Your task to perform on an android device: Find coffee shops on Maps Image 0: 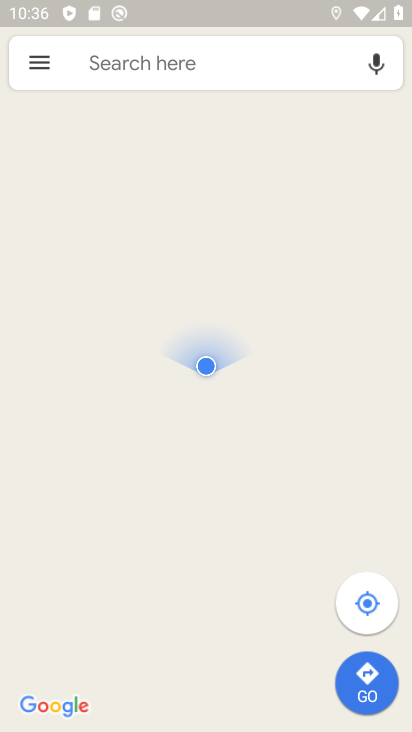
Step 0: press back button
Your task to perform on an android device: Find coffee shops on Maps Image 1: 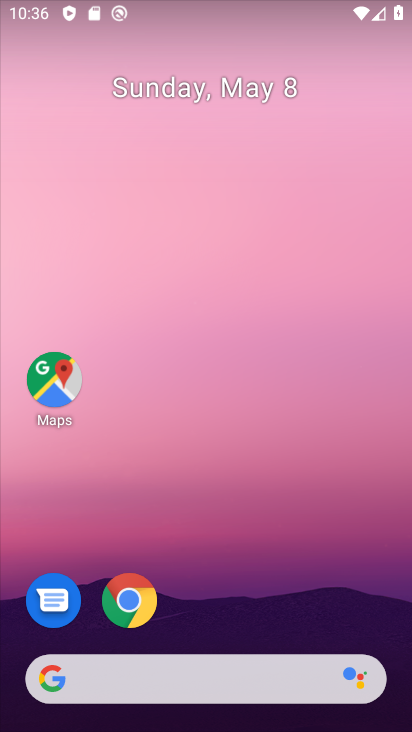
Step 1: click (62, 387)
Your task to perform on an android device: Find coffee shops on Maps Image 2: 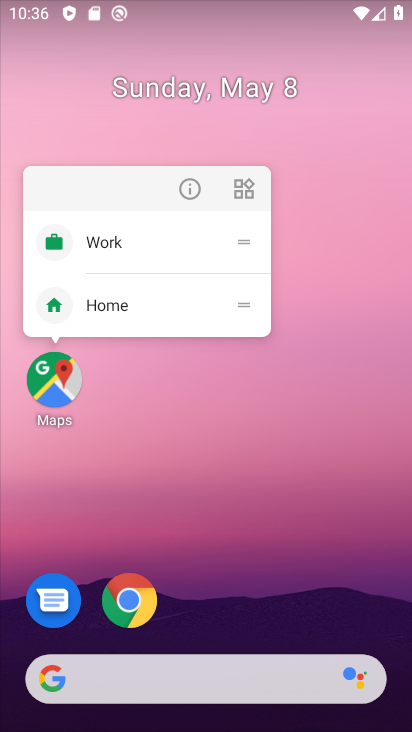
Step 2: click (207, 192)
Your task to perform on an android device: Find coffee shops on Maps Image 3: 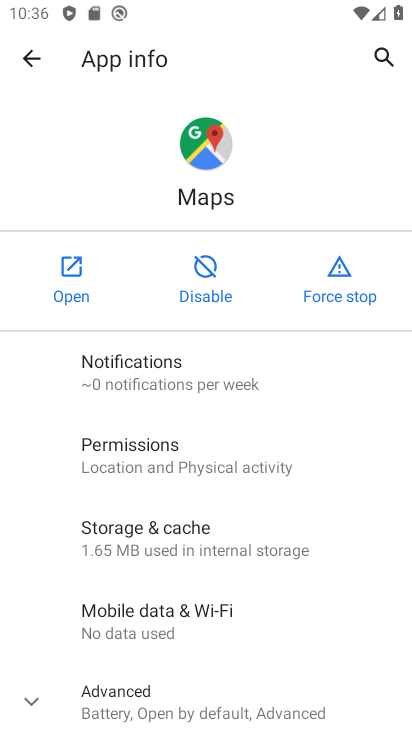
Step 3: click (79, 269)
Your task to perform on an android device: Find coffee shops on Maps Image 4: 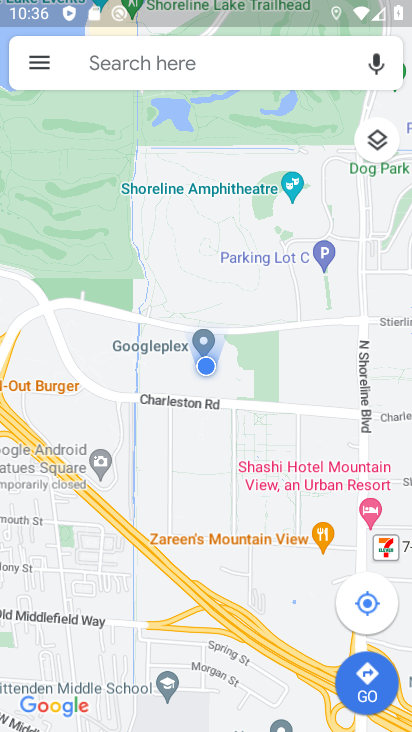
Step 4: click (275, 47)
Your task to perform on an android device: Find coffee shops on Maps Image 5: 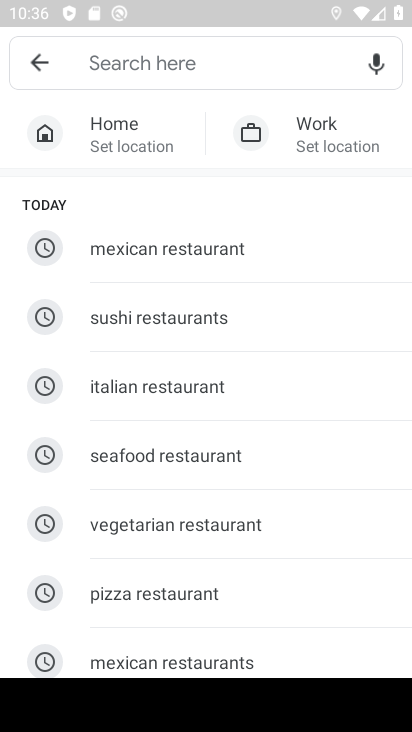
Step 5: drag from (212, 625) to (375, 237)
Your task to perform on an android device: Find coffee shops on Maps Image 6: 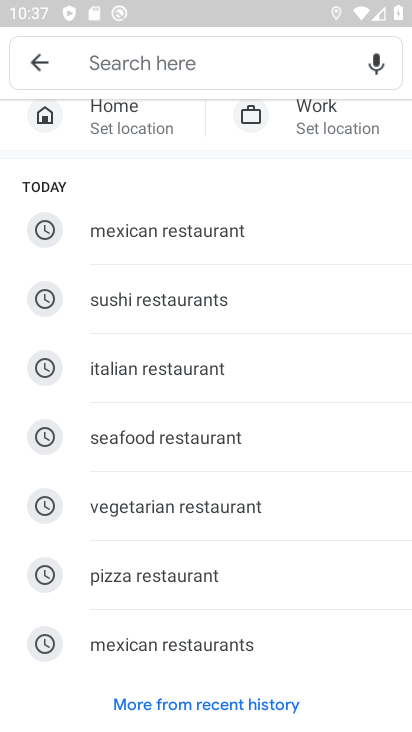
Step 6: click (231, 35)
Your task to perform on an android device: Find coffee shops on Maps Image 7: 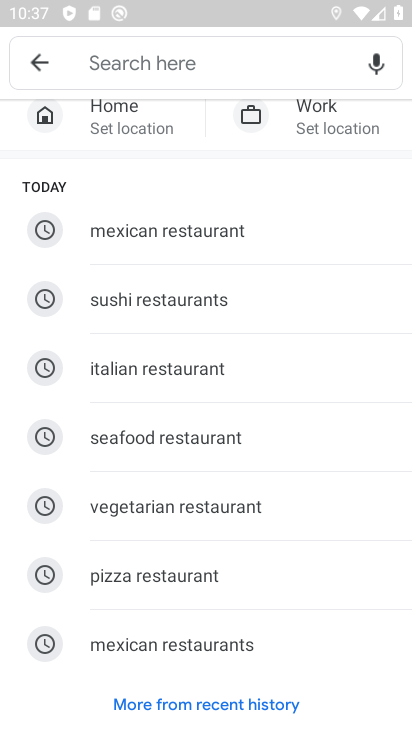
Step 7: click (230, 53)
Your task to perform on an android device: Find coffee shops on Maps Image 8: 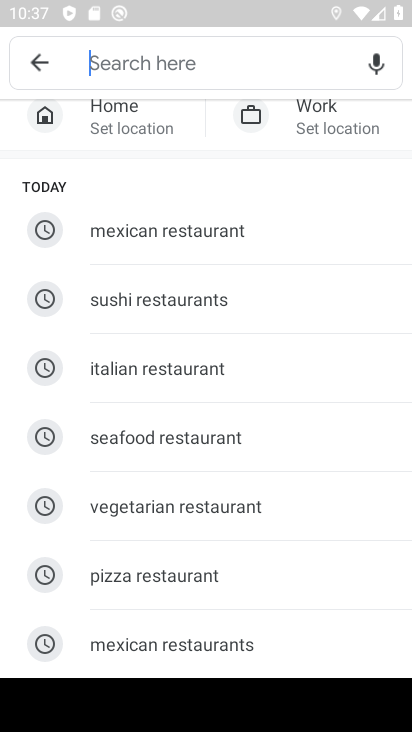
Step 8: type " coffee "
Your task to perform on an android device: Find coffee shops on Maps Image 9: 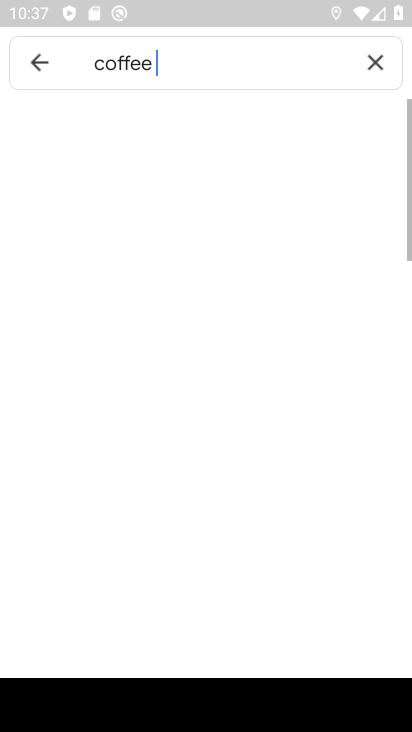
Step 9: type ""
Your task to perform on an android device: Find coffee shops on Maps Image 10: 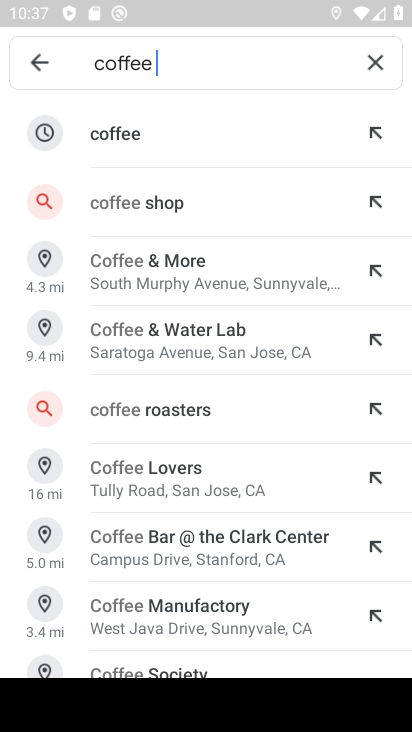
Step 10: click (112, 126)
Your task to perform on an android device: Find coffee shops on Maps Image 11: 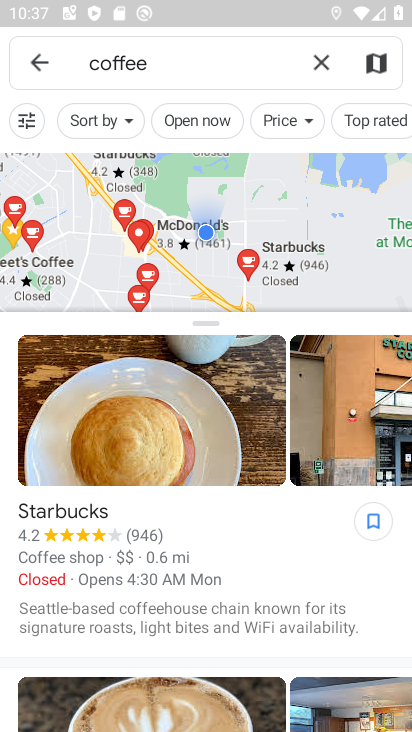
Step 11: task complete